Your task to perform on an android device: change the clock style Image 0: 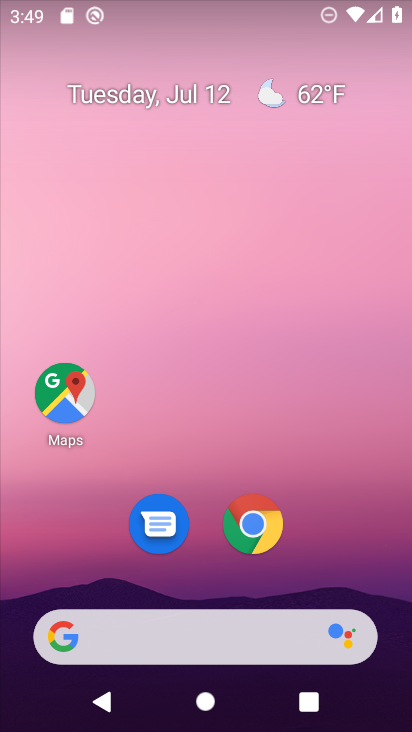
Step 0: drag from (346, 545) to (317, 74)
Your task to perform on an android device: change the clock style Image 1: 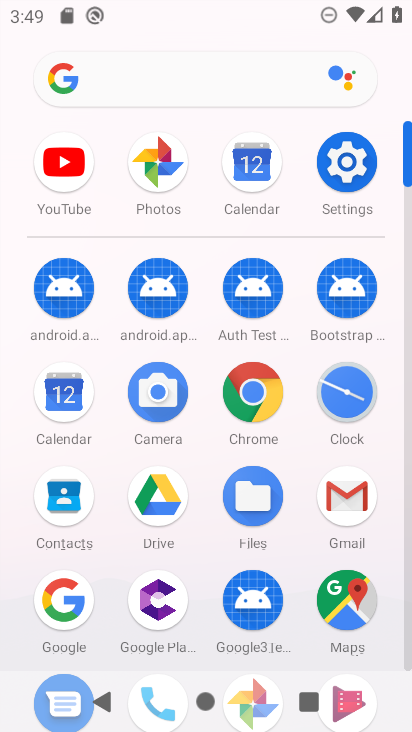
Step 1: click (343, 399)
Your task to perform on an android device: change the clock style Image 2: 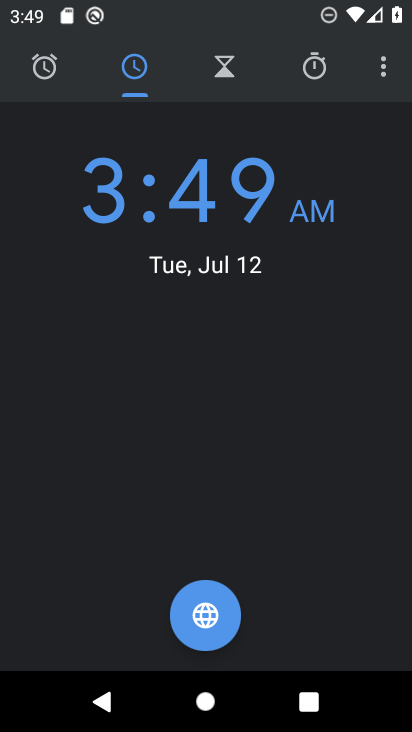
Step 2: click (384, 66)
Your task to perform on an android device: change the clock style Image 3: 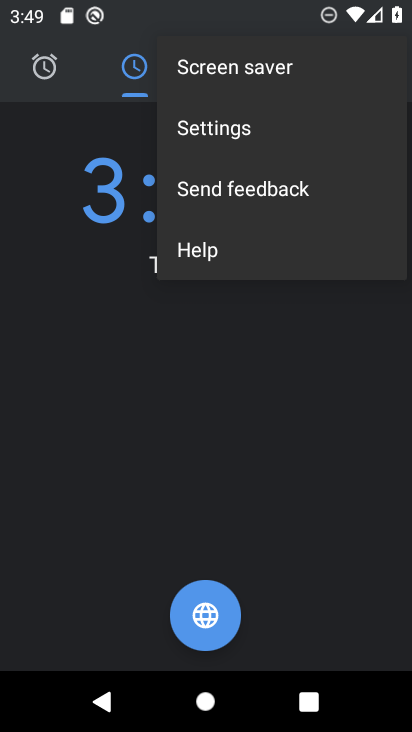
Step 3: click (278, 128)
Your task to perform on an android device: change the clock style Image 4: 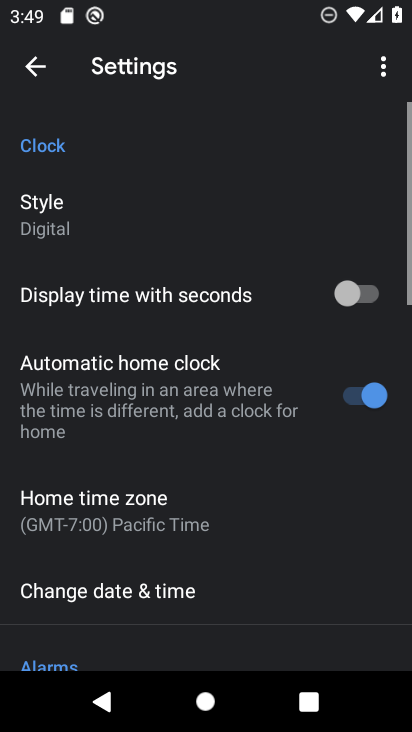
Step 4: click (57, 215)
Your task to perform on an android device: change the clock style Image 5: 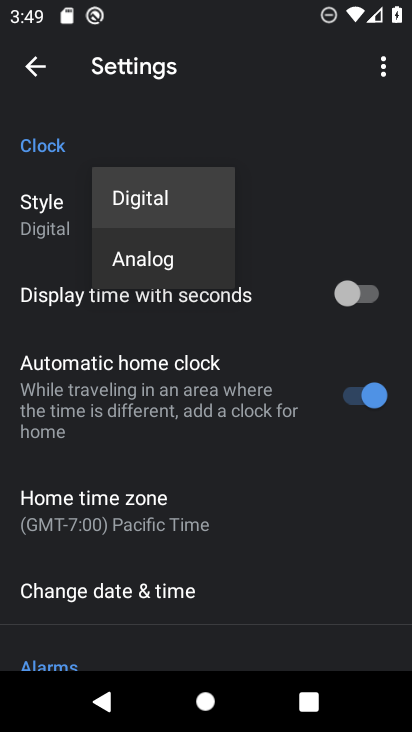
Step 5: click (150, 260)
Your task to perform on an android device: change the clock style Image 6: 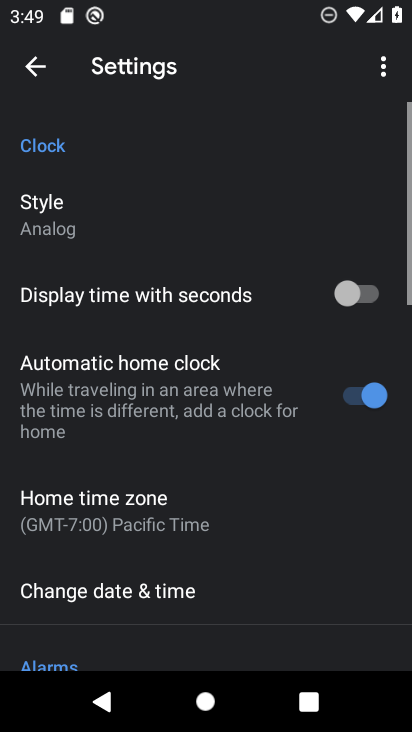
Step 6: click (36, 75)
Your task to perform on an android device: change the clock style Image 7: 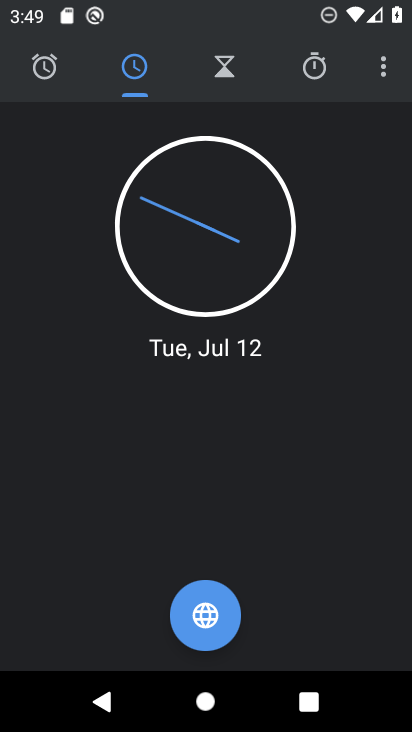
Step 7: task complete